Your task to perform on an android device: star an email in the gmail app Image 0: 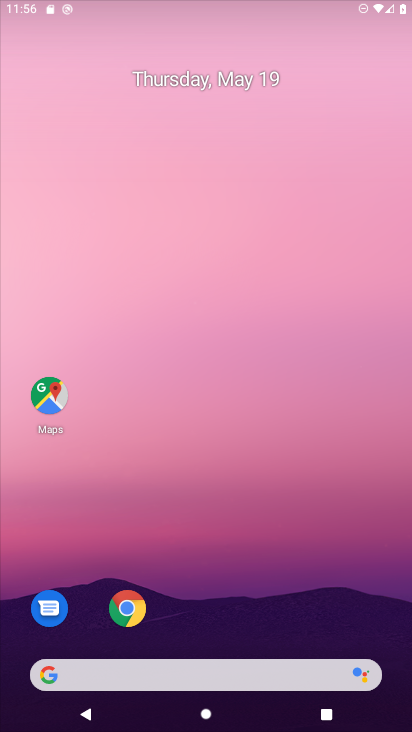
Step 0: press home button
Your task to perform on an android device: star an email in the gmail app Image 1: 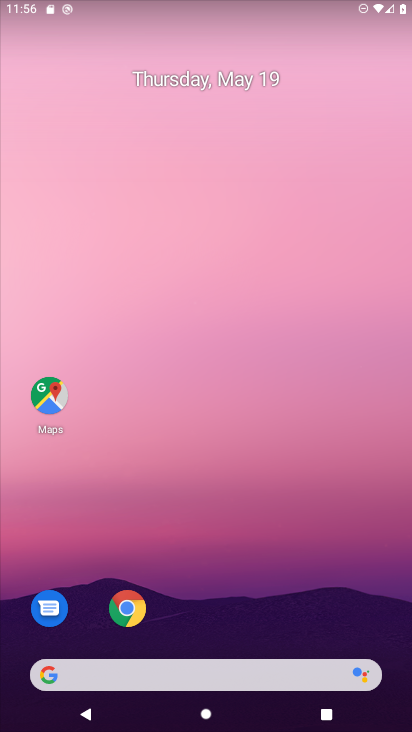
Step 1: press home button
Your task to perform on an android device: star an email in the gmail app Image 2: 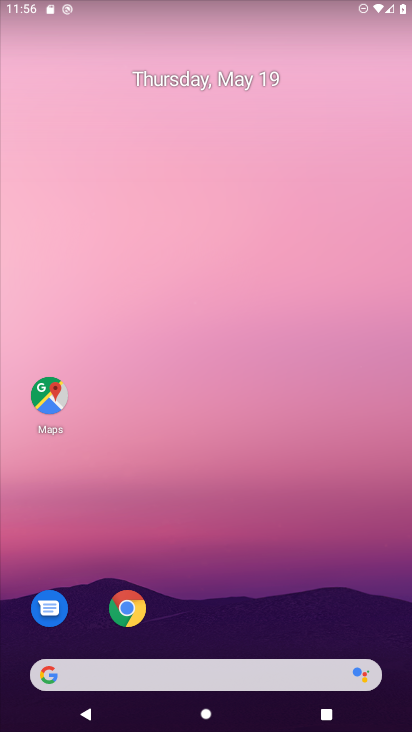
Step 2: drag from (189, 623) to (185, 3)
Your task to perform on an android device: star an email in the gmail app Image 3: 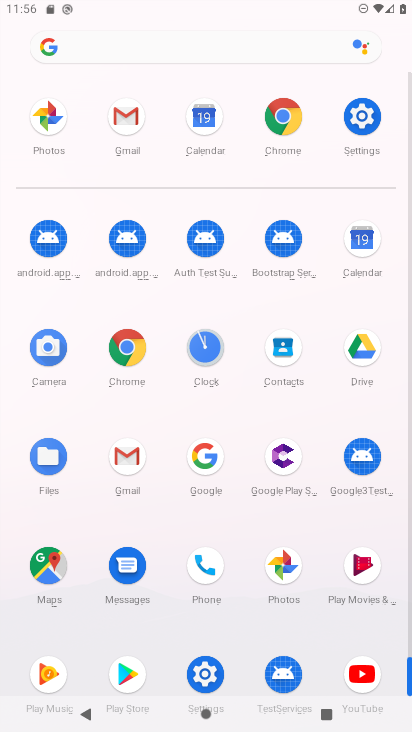
Step 3: click (138, 137)
Your task to perform on an android device: star an email in the gmail app Image 4: 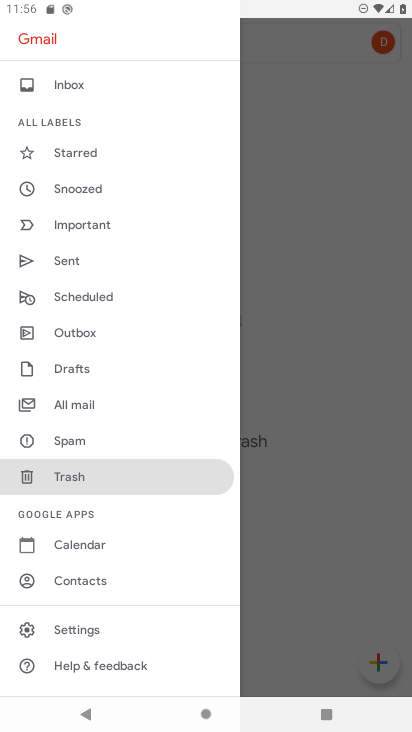
Step 4: task complete